Your task to perform on an android device: Open notification settings Image 0: 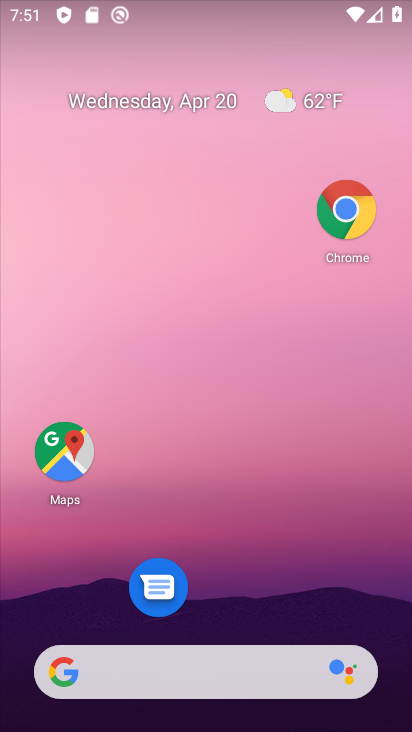
Step 0: drag from (249, 628) to (345, 16)
Your task to perform on an android device: Open notification settings Image 1: 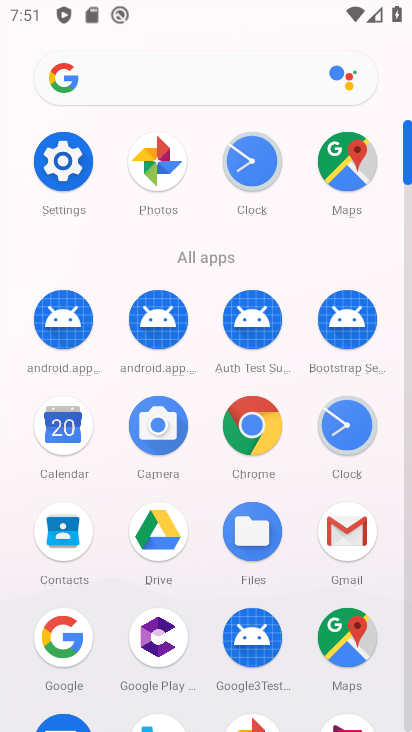
Step 1: click (84, 159)
Your task to perform on an android device: Open notification settings Image 2: 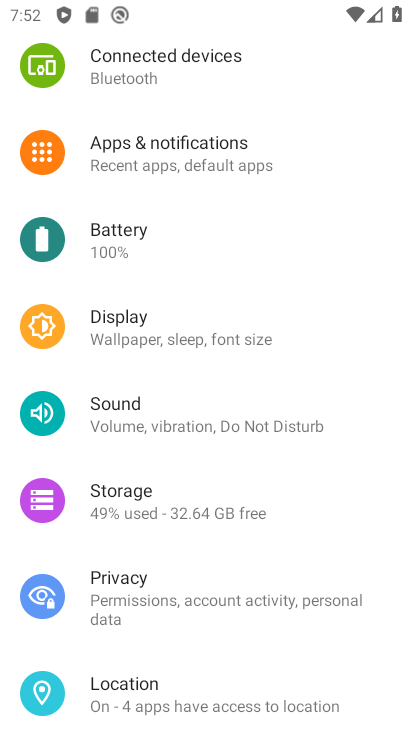
Step 2: click (194, 157)
Your task to perform on an android device: Open notification settings Image 3: 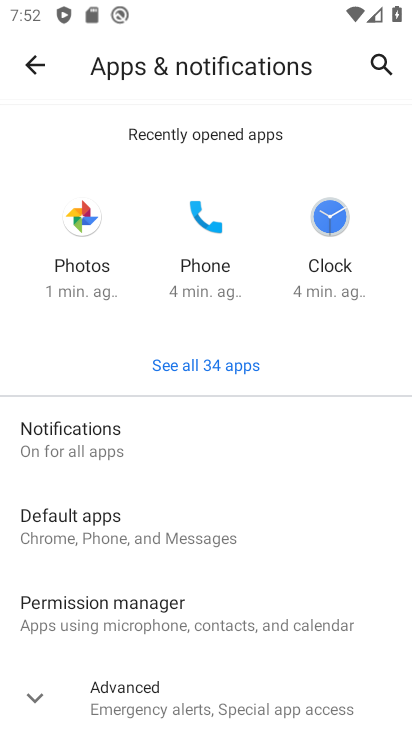
Step 3: task complete